Your task to perform on an android device: change text size in settings app Image 0: 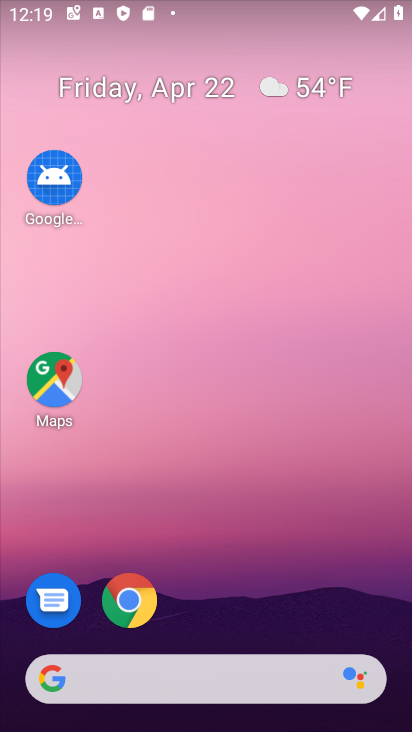
Step 0: drag from (266, 555) to (220, 34)
Your task to perform on an android device: change text size in settings app Image 1: 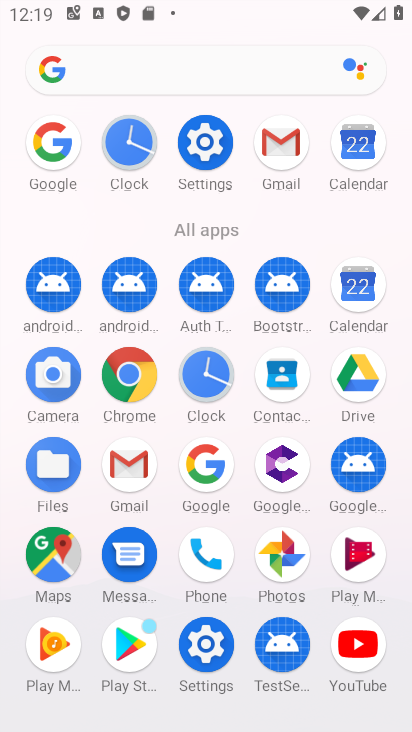
Step 1: click (202, 154)
Your task to perform on an android device: change text size in settings app Image 2: 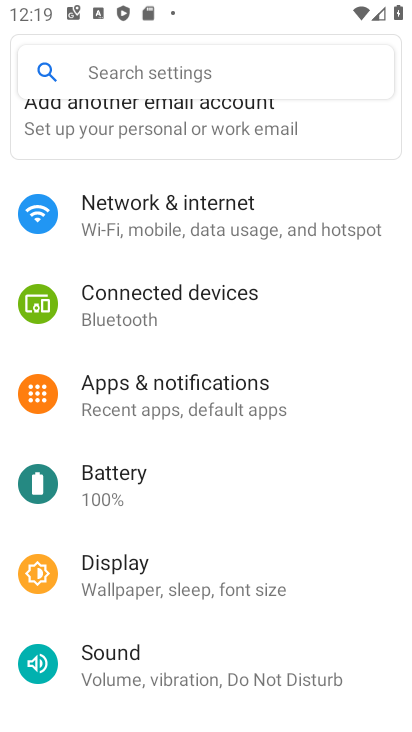
Step 2: click (146, 563)
Your task to perform on an android device: change text size in settings app Image 3: 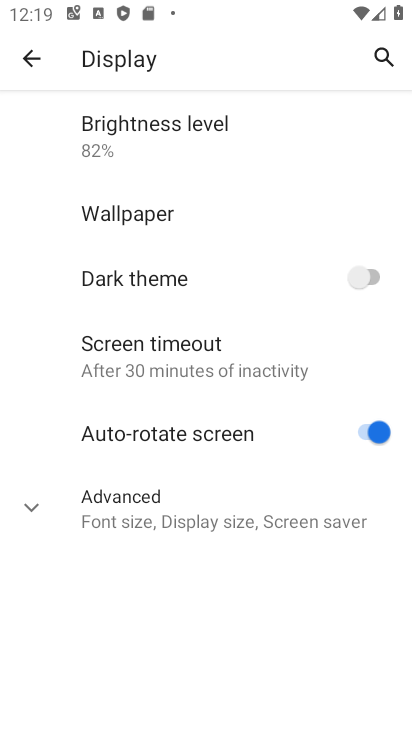
Step 3: click (154, 494)
Your task to perform on an android device: change text size in settings app Image 4: 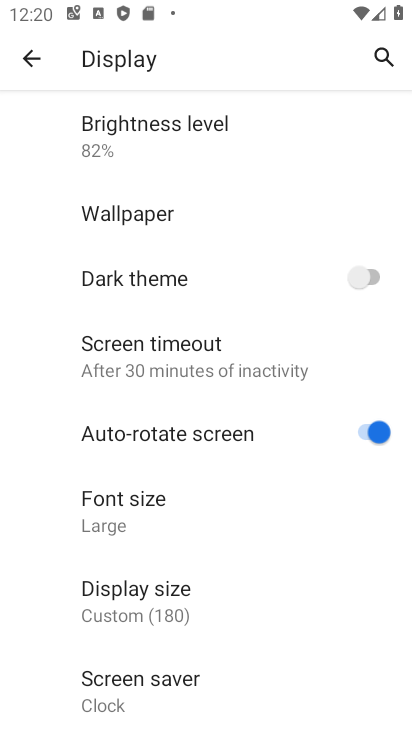
Step 4: click (170, 513)
Your task to perform on an android device: change text size in settings app Image 5: 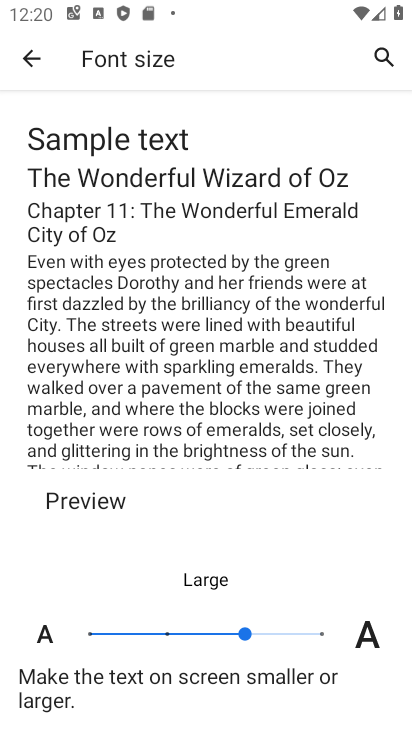
Step 5: click (166, 635)
Your task to perform on an android device: change text size in settings app Image 6: 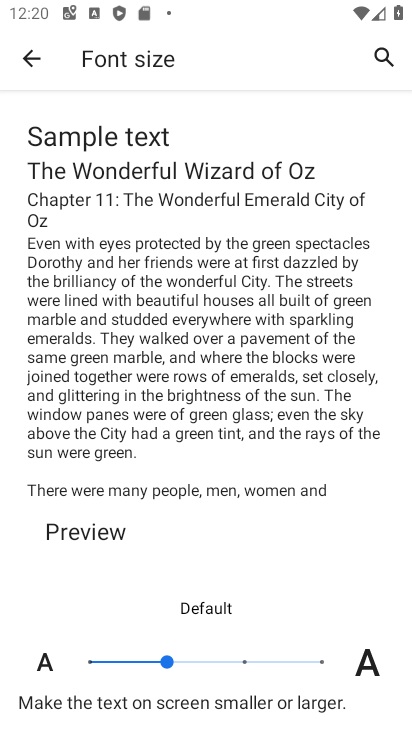
Step 6: task complete